Your task to perform on an android device: turn off data saver in the chrome app Image 0: 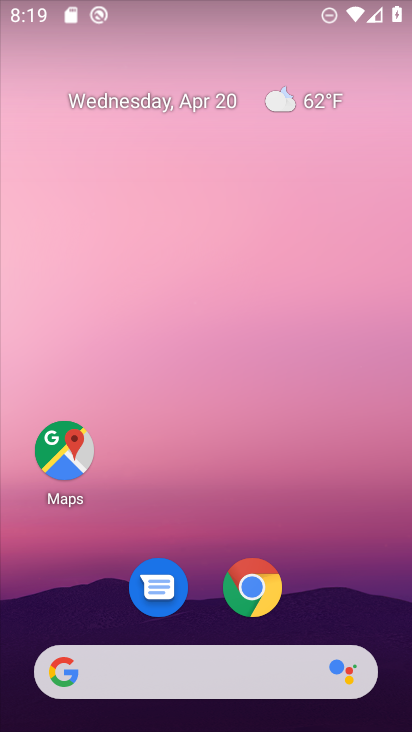
Step 0: click (263, 606)
Your task to perform on an android device: turn off data saver in the chrome app Image 1: 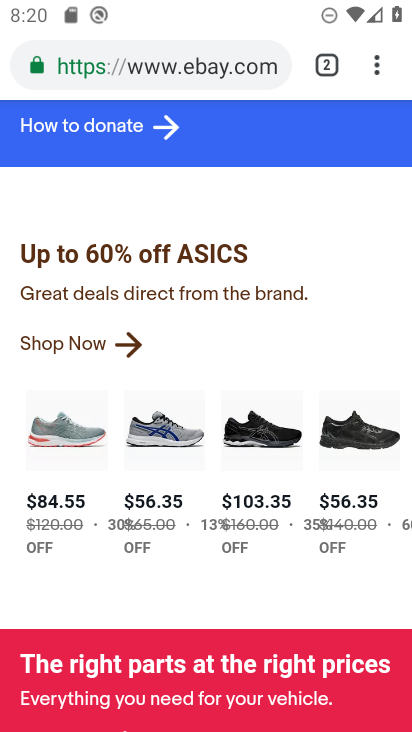
Step 1: click (378, 76)
Your task to perform on an android device: turn off data saver in the chrome app Image 2: 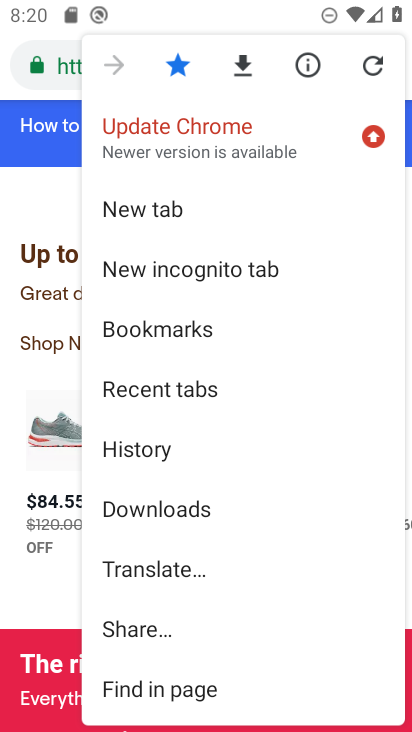
Step 2: drag from (216, 600) to (218, 241)
Your task to perform on an android device: turn off data saver in the chrome app Image 3: 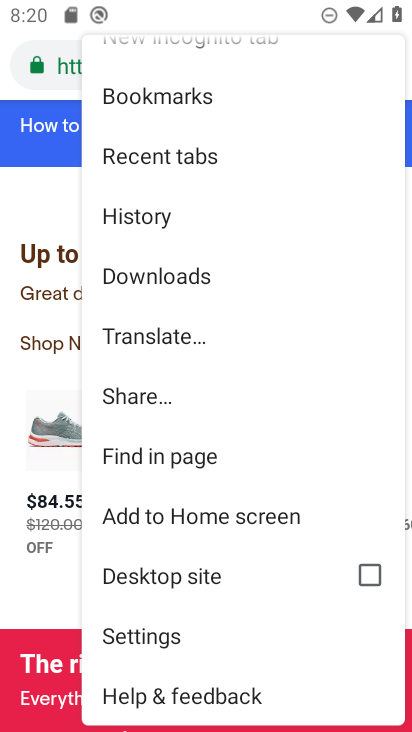
Step 3: click (168, 638)
Your task to perform on an android device: turn off data saver in the chrome app Image 4: 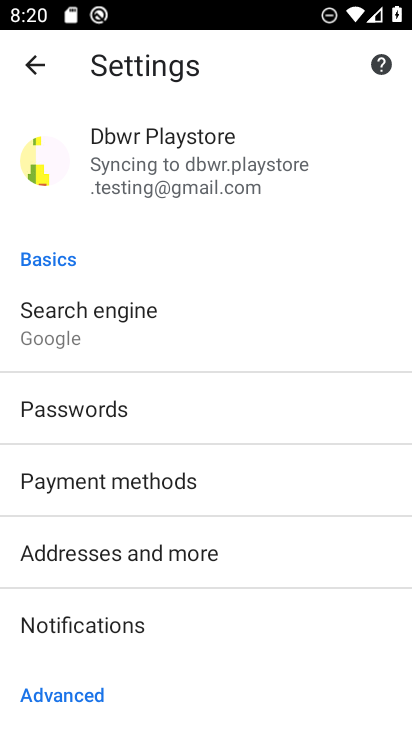
Step 4: drag from (249, 621) to (223, 244)
Your task to perform on an android device: turn off data saver in the chrome app Image 5: 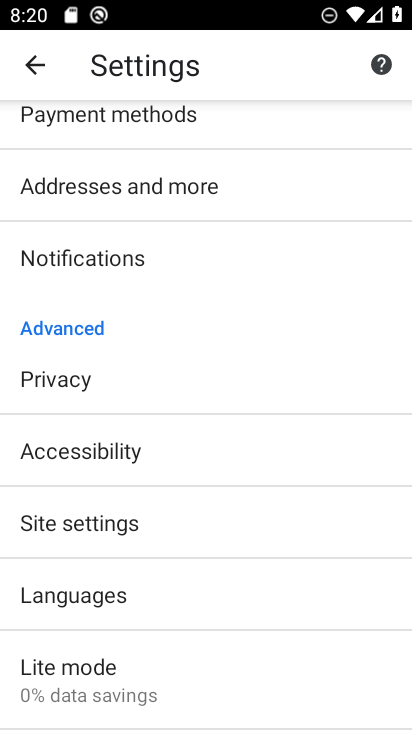
Step 5: click (151, 676)
Your task to perform on an android device: turn off data saver in the chrome app Image 6: 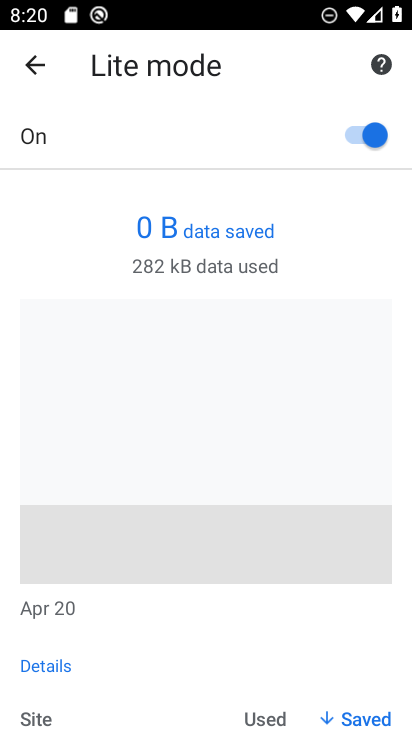
Step 6: click (378, 139)
Your task to perform on an android device: turn off data saver in the chrome app Image 7: 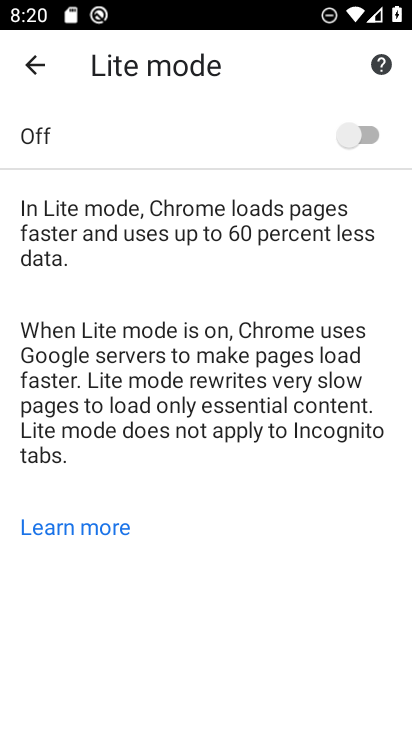
Step 7: task complete